Your task to perform on an android device: What's the weather? Image 0: 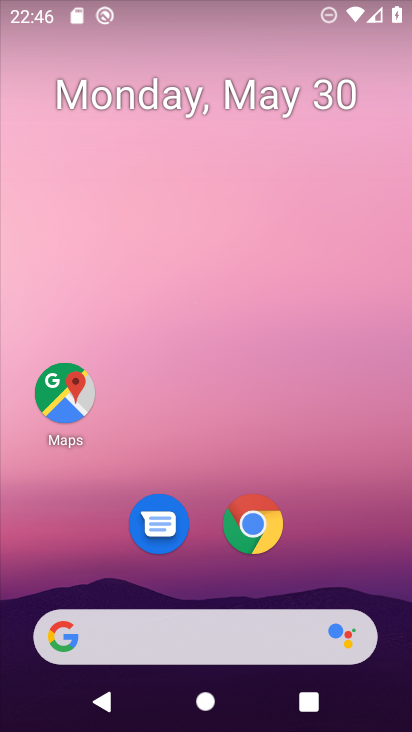
Step 0: click (180, 633)
Your task to perform on an android device: What's the weather? Image 1: 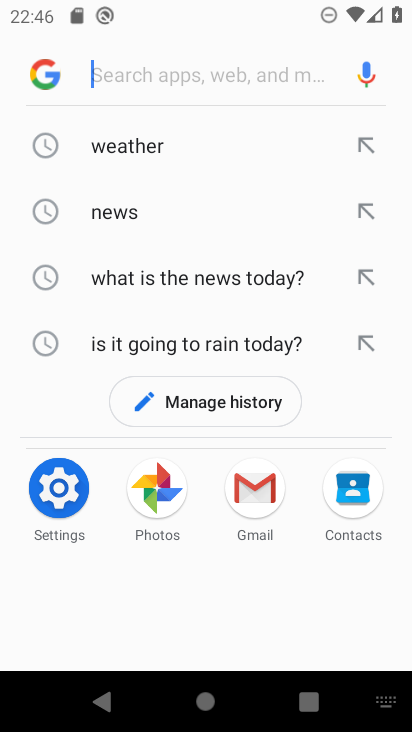
Step 1: click (140, 149)
Your task to perform on an android device: What's the weather? Image 2: 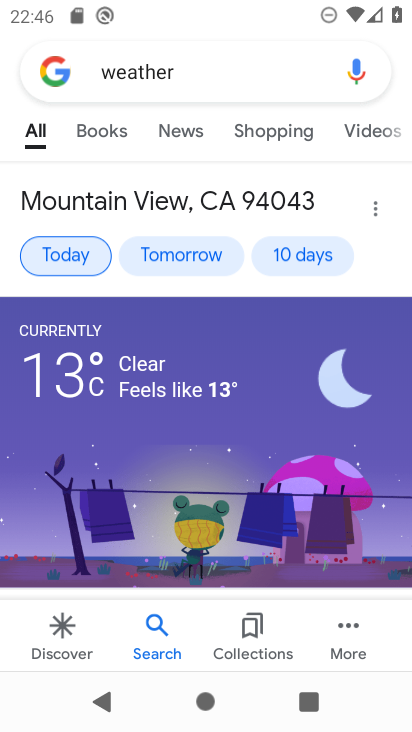
Step 2: click (56, 248)
Your task to perform on an android device: What's the weather? Image 3: 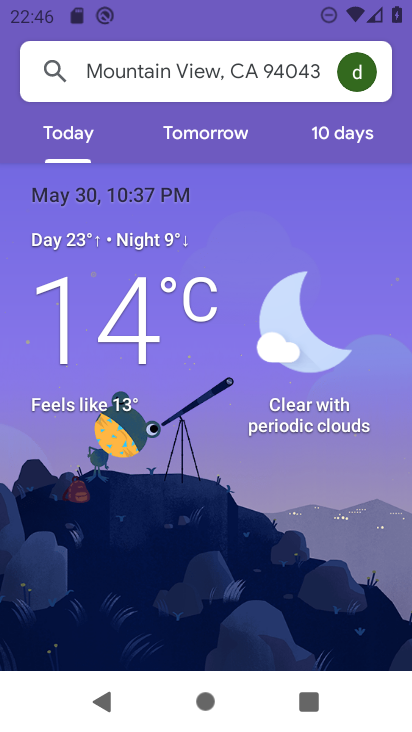
Step 3: task complete